Your task to perform on an android device: Go to Google maps Image 0: 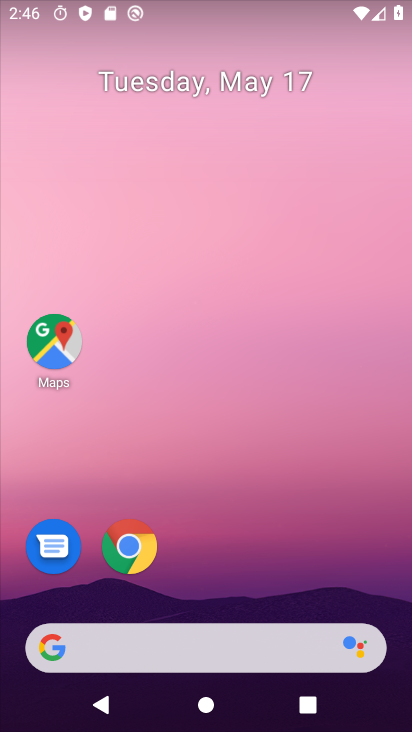
Step 0: drag from (205, 598) to (227, 138)
Your task to perform on an android device: Go to Google maps Image 1: 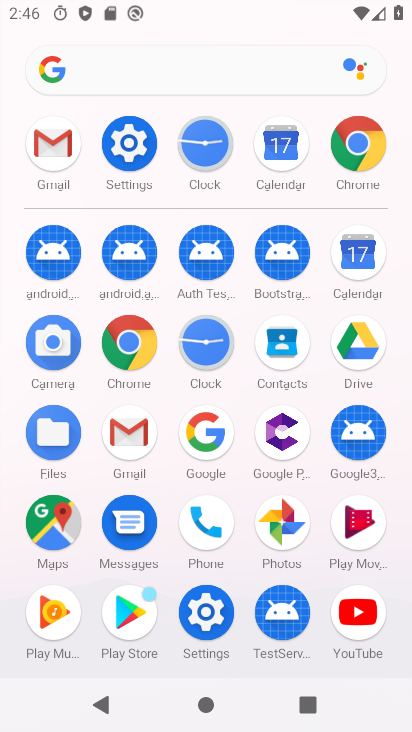
Step 1: click (59, 531)
Your task to perform on an android device: Go to Google maps Image 2: 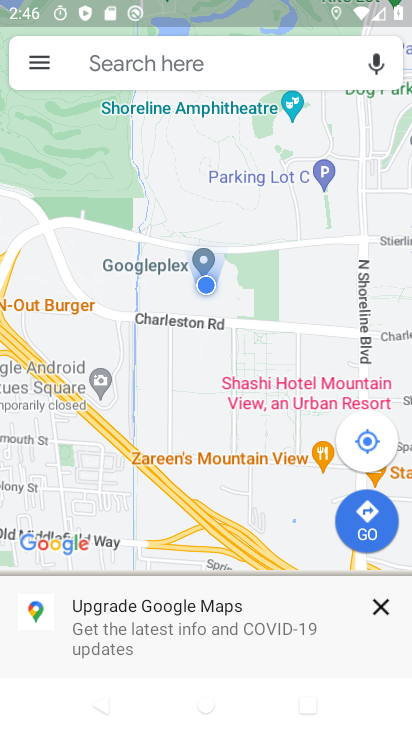
Step 2: task complete